Your task to perform on an android device: open sync settings in chrome Image 0: 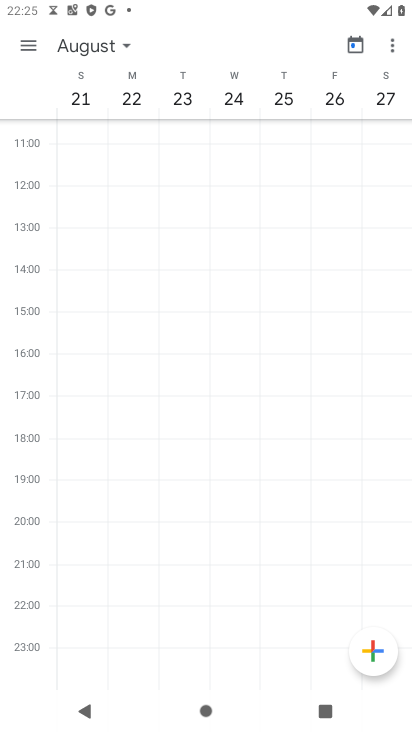
Step 0: press home button
Your task to perform on an android device: open sync settings in chrome Image 1: 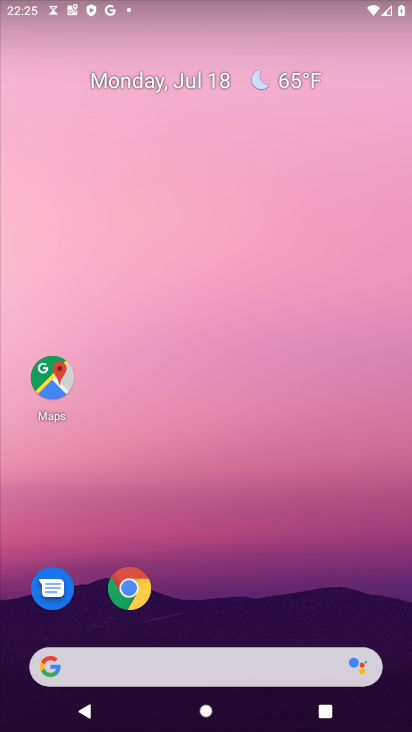
Step 1: click (129, 585)
Your task to perform on an android device: open sync settings in chrome Image 2: 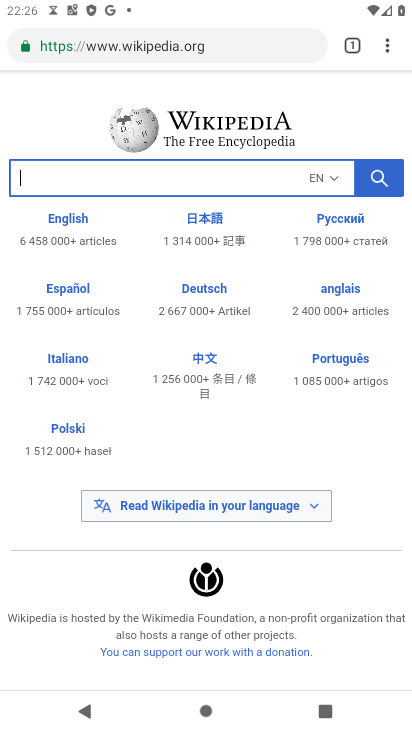
Step 2: click (387, 42)
Your task to perform on an android device: open sync settings in chrome Image 3: 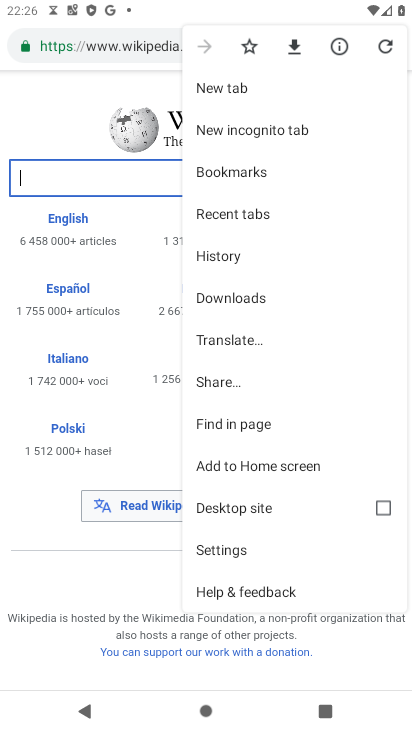
Step 3: click (231, 552)
Your task to perform on an android device: open sync settings in chrome Image 4: 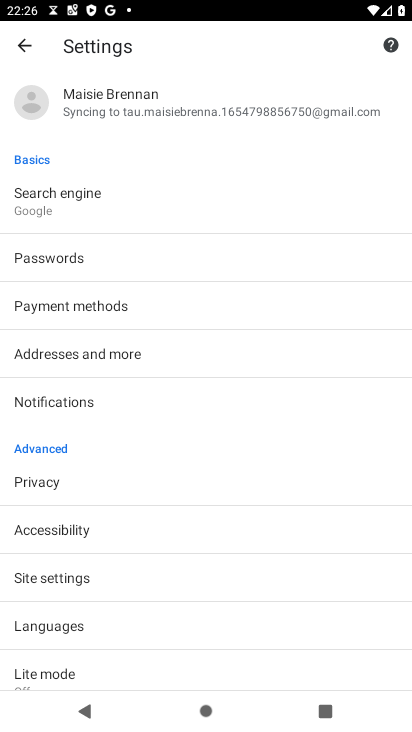
Step 4: drag from (129, 552) to (158, 360)
Your task to perform on an android device: open sync settings in chrome Image 5: 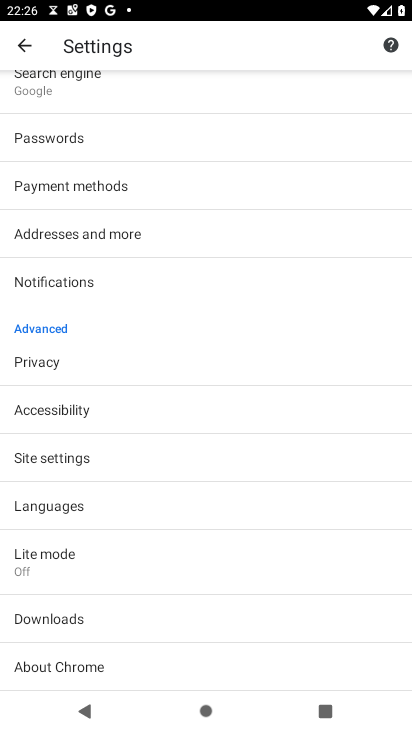
Step 5: click (58, 460)
Your task to perform on an android device: open sync settings in chrome Image 6: 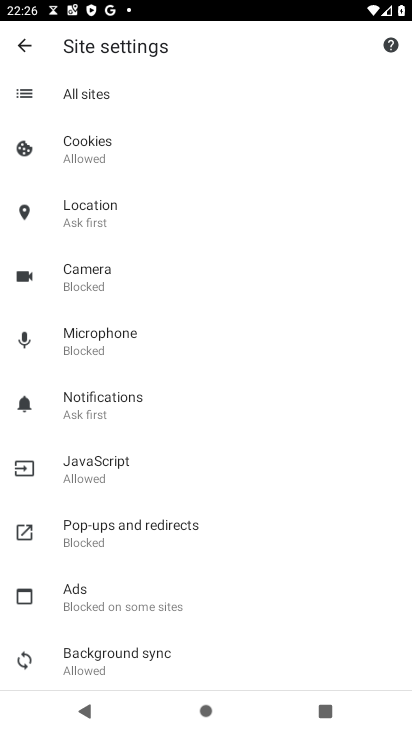
Step 6: drag from (110, 489) to (162, 324)
Your task to perform on an android device: open sync settings in chrome Image 7: 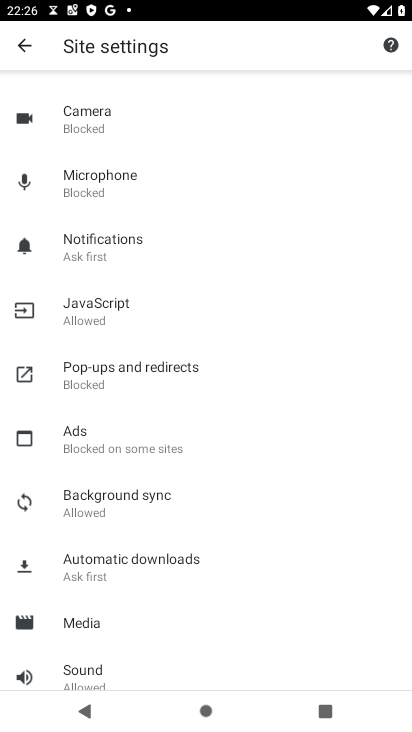
Step 7: click (132, 501)
Your task to perform on an android device: open sync settings in chrome Image 8: 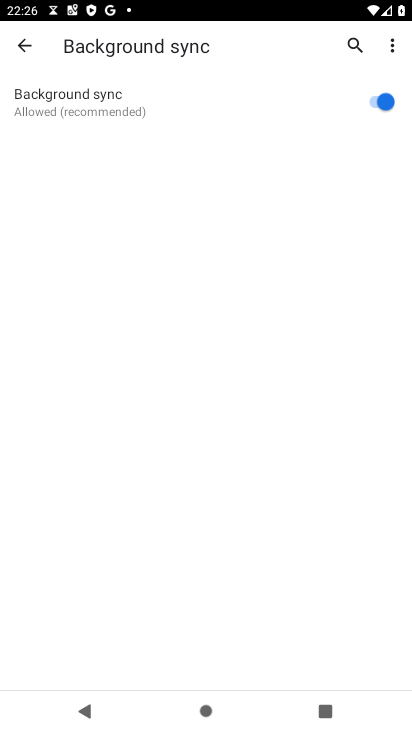
Step 8: task complete